Your task to perform on an android device: turn smart compose on in the gmail app Image 0: 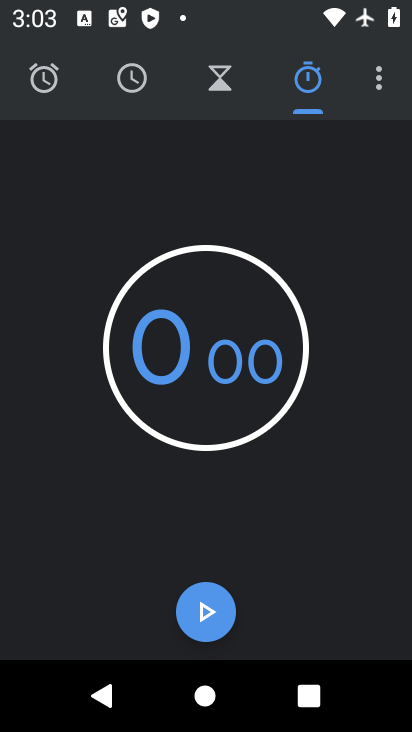
Step 0: press home button
Your task to perform on an android device: turn smart compose on in the gmail app Image 1: 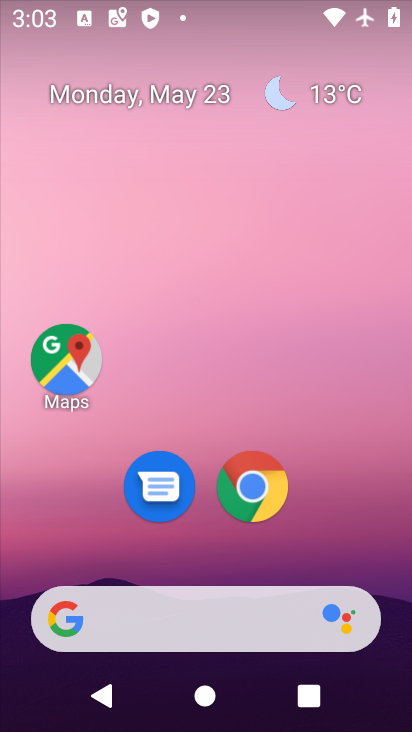
Step 1: drag from (385, 552) to (325, 9)
Your task to perform on an android device: turn smart compose on in the gmail app Image 2: 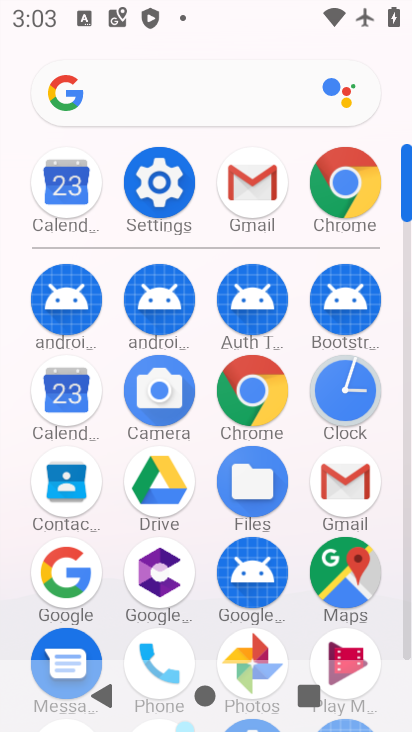
Step 2: click (404, 645)
Your task to perform on an android device: turn smart compose on in the gmail app Image 3: 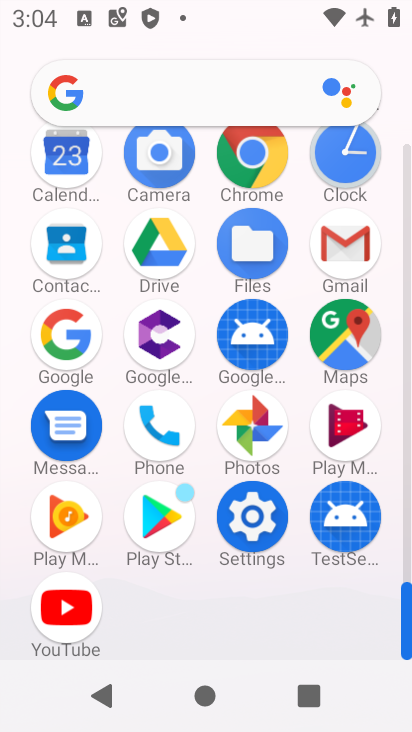
Step 3: click (341, 243)
Your task to perform on an android device: turn smart compose on in the gmail app Image 4: 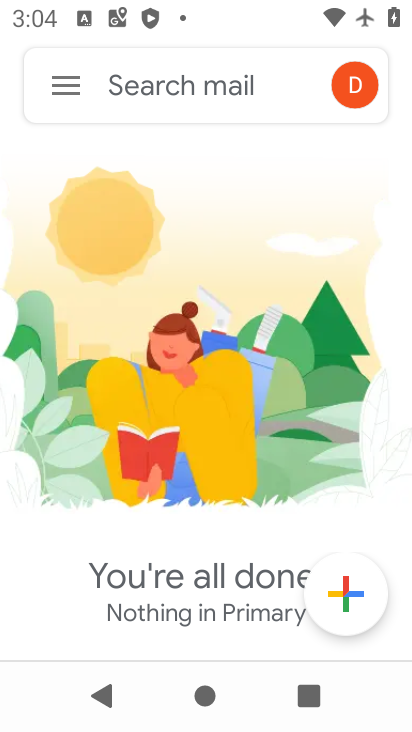
Step 4: click (64, 84)
Your task to perform on an android device: turn smart compose on in the gmail app Image 5: 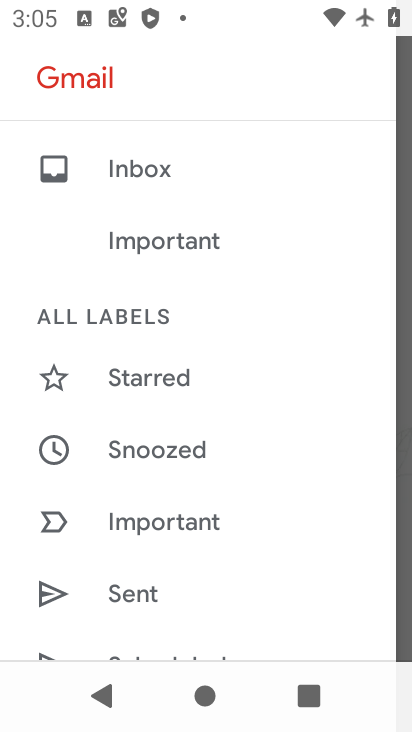
Step 5: drag from (267, 569) to (215, 54)
Your task to perform on an android device: turn smart compose on in the gmail app Image 6: 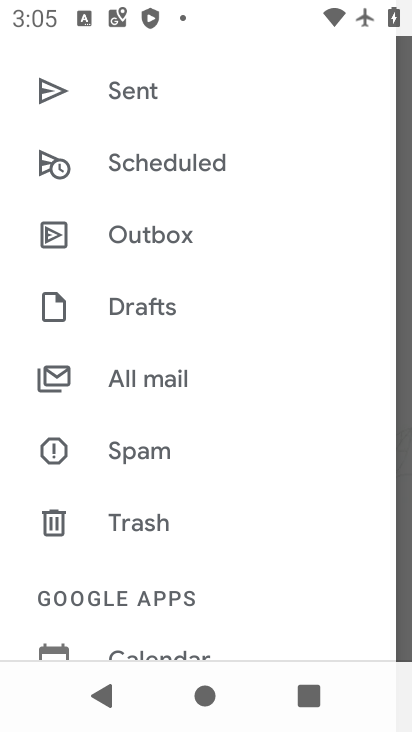
Step 6: drag from (219, 611) to (248, 126)
Your task to perform on an android device: turn smart compose on in the gmail app Image 7: 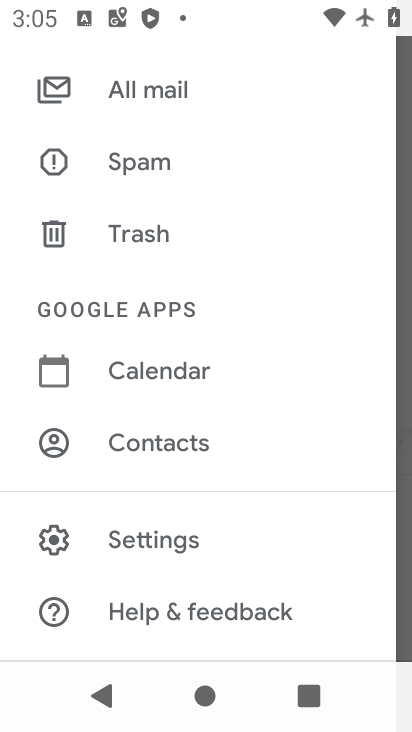
Step 7: click (153, 515)
Your task to perform on an android device: turn smart compose on in the gmail app Image 8: 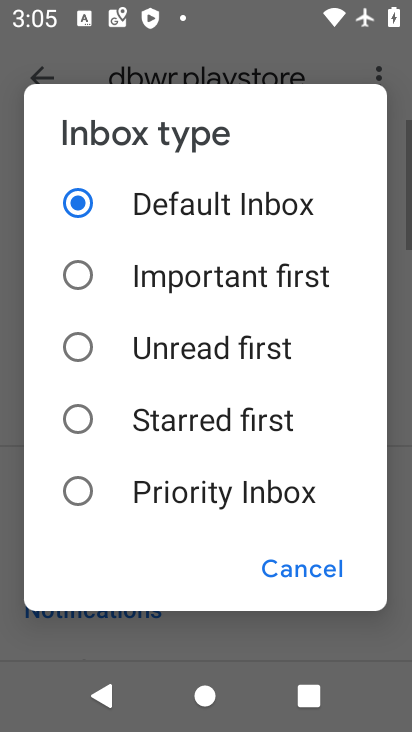
Step 8: drag from (253, 565) to (229, 88)
Your task to perform on an android device: turn smart compose on in the gmail app Image 9: 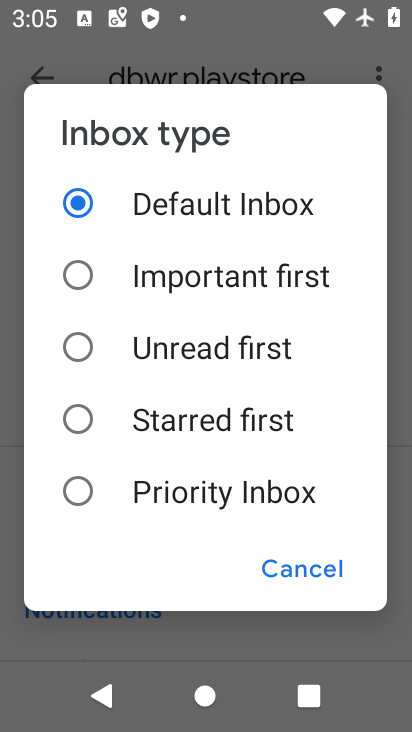
Step 9: click (300, 569)
Your task to perform on an android device: turn smart compose on in the gmail app Image 10: 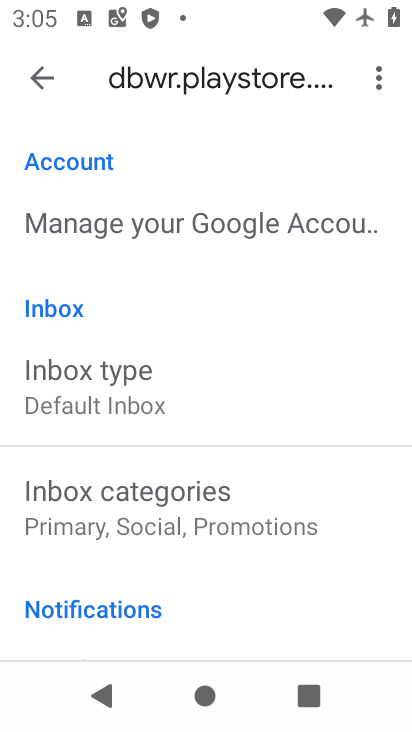
Step 10: task complete